Your task to perform on an android device: Clear the shopping cart on costco. Add razer nari to the cart on costco, then select checkout. Image 0: 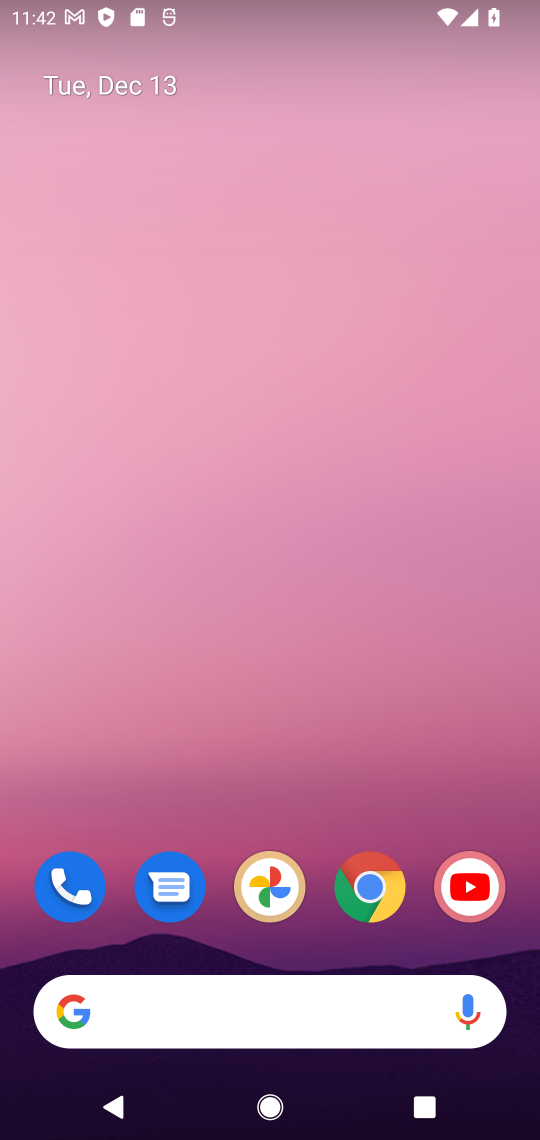
Step 0: drag from (166, 998) to (352, 217)
Your task to perform on an android device: Clear the shopping cart on costco. Add razer nari to the cart on costco, then select checkout. Image 1: 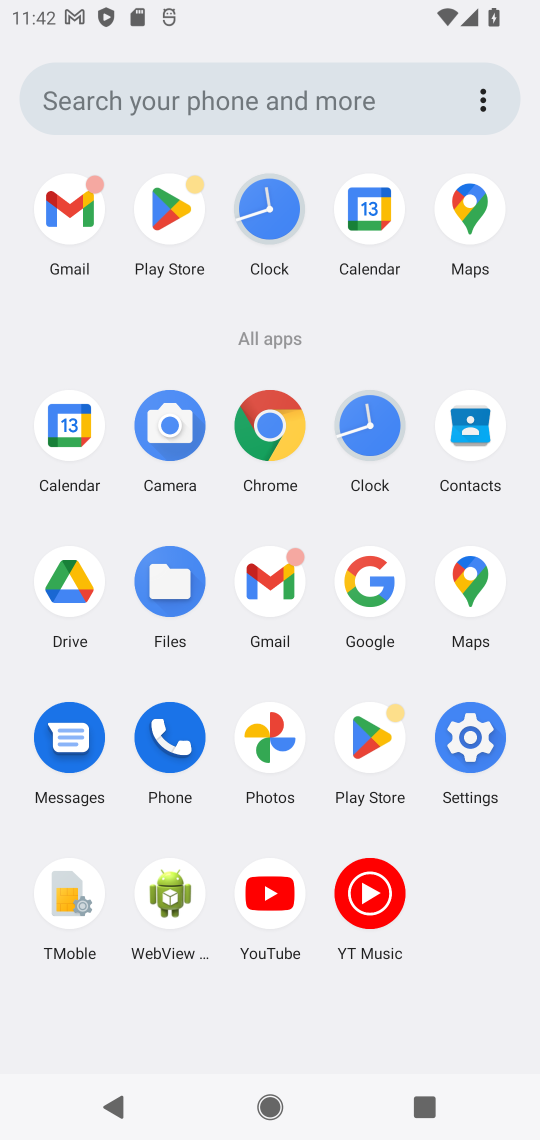
Step 1: click (370, 587)
Your task to perform on an android device: Clear the shopping cart on costco. Add razer nari to the cart on costco, then select checkout. Image 2: 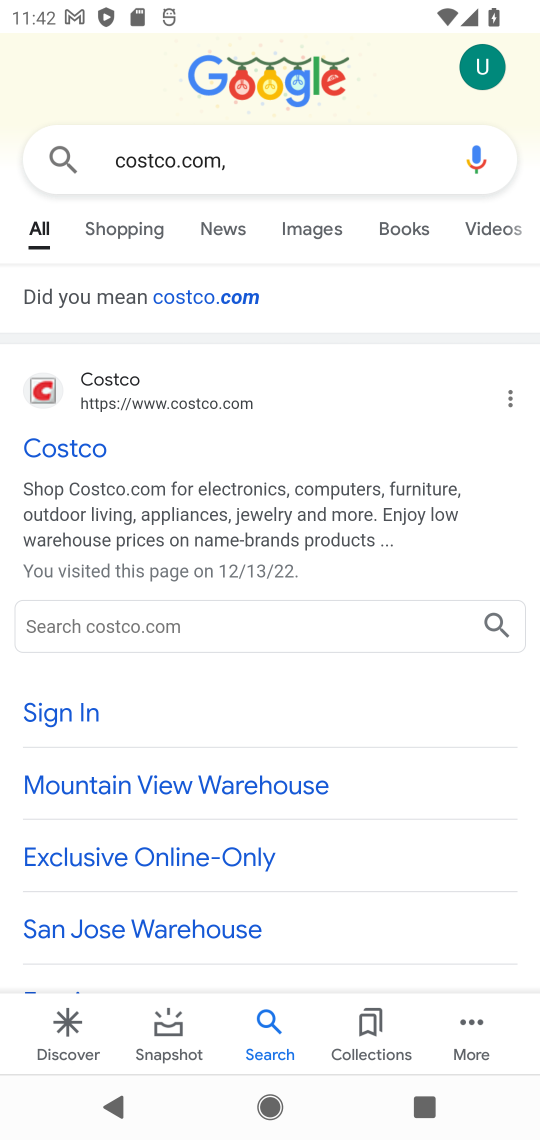
Step 2: click (68, 447)
Your task to perform on an android device: Clear the shopping cart on costco. Add razer nari to the cart on costco, then select checkout. Image 3: 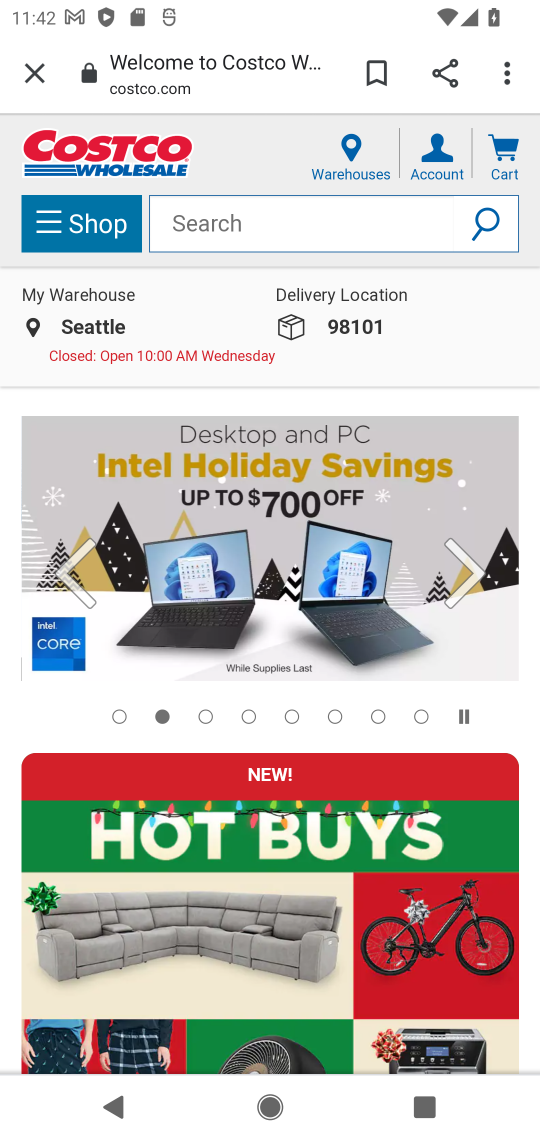
Step 3: click (241, 226)
Your task to perform on an android device: Clear the shopping cart on costco. Add razer nari to the cart on costco, then select checkout. Image 4: 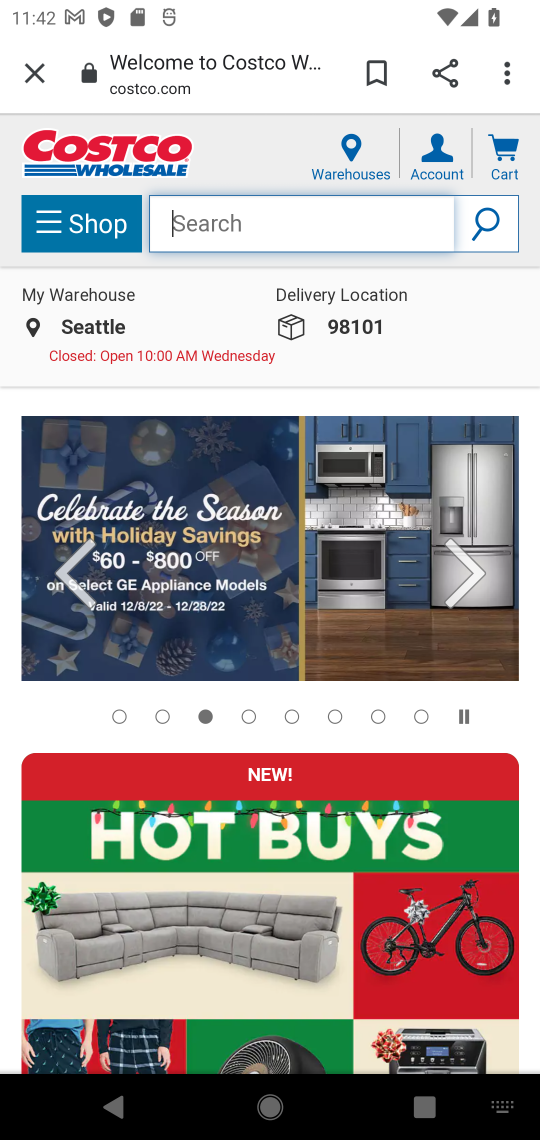
Step 4: type "razer nar"
Your task to perform on an android device: Clear the shopping cart on costco. Add razer nari to the cart on costco, then select checkout. Image 5: 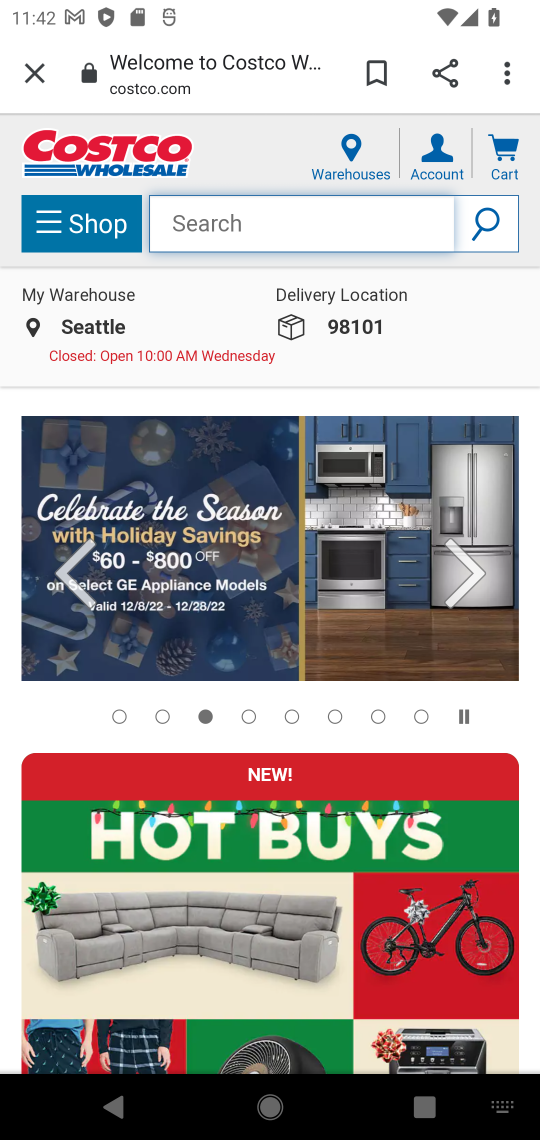
Step 5: click (479, 219)
Your task to perform on an android device: Clear the shopping cart on costco. Add razer nari to the cart on costco, then select checkout. Image 6: 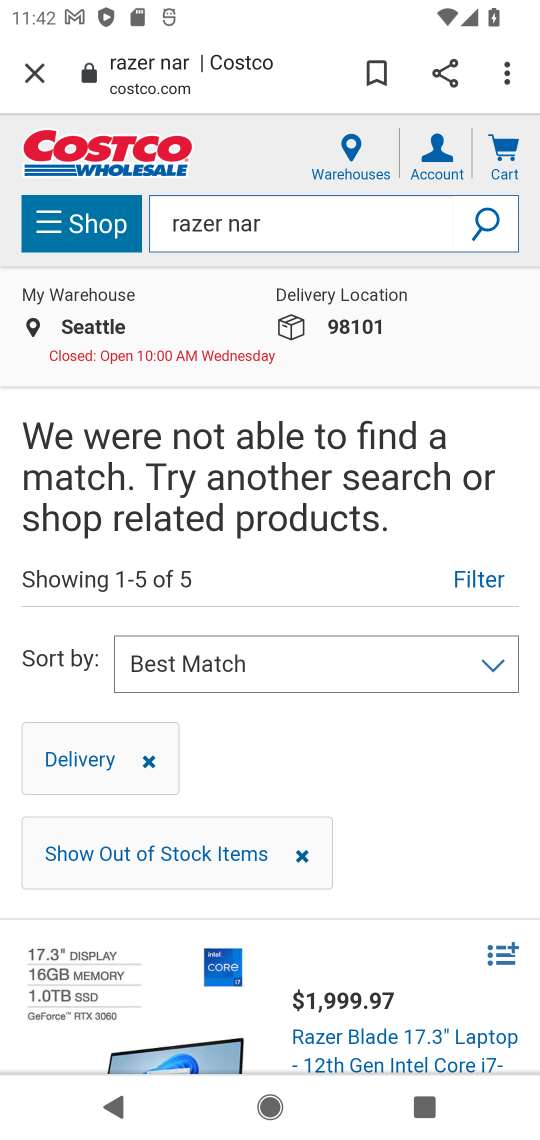
Step 6: drag from (265, 957) to (354, 409)
Your task to perform on an android device: Clear the shopping cart on costco. Add razer nari to the cart on costco, then select checkout. Image 7: 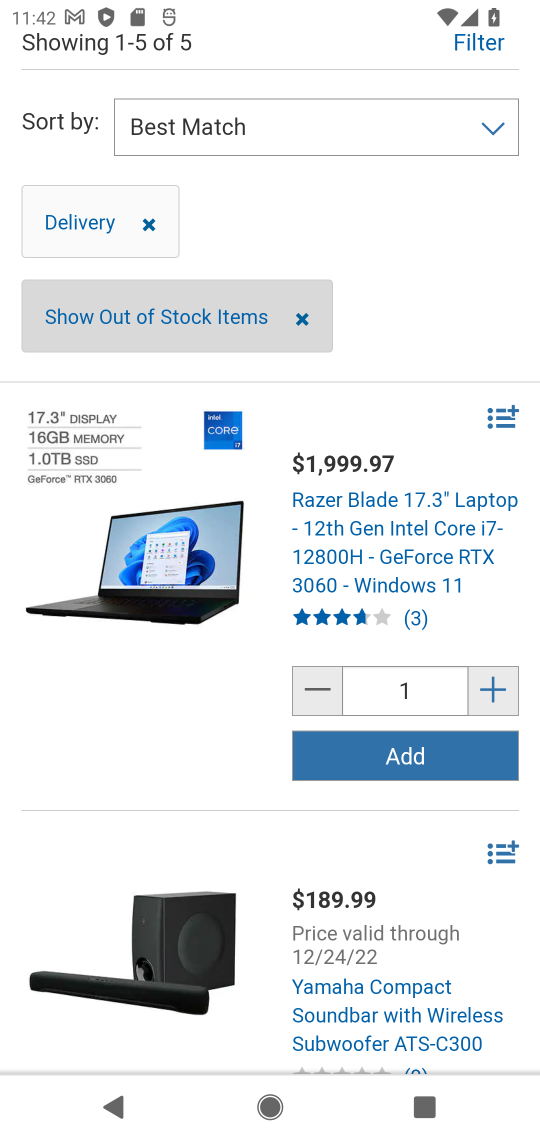
Step 7: click (388, 767)
Your task to perform on an android device: Clear the shopping cart on costco. Add razer nari to the cart on costco, then select checkout. Image 8: 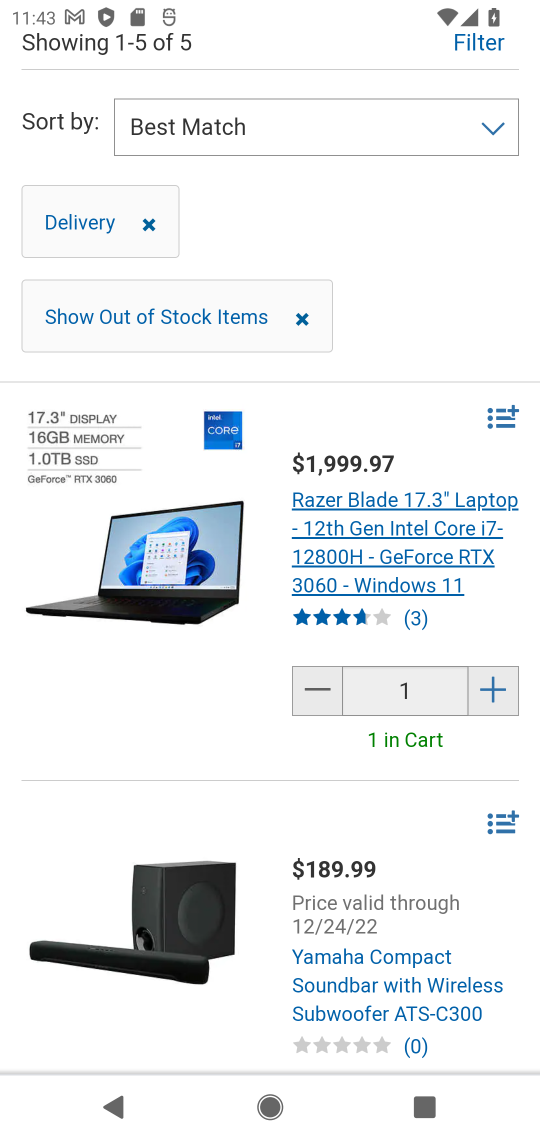
Step 8: drag from (405, 278) to (420, 635)
Your task to perform on an android device: Clear the shopping cart on costco. Add razer nari to the cart on costco, then select checkout. Image 9: 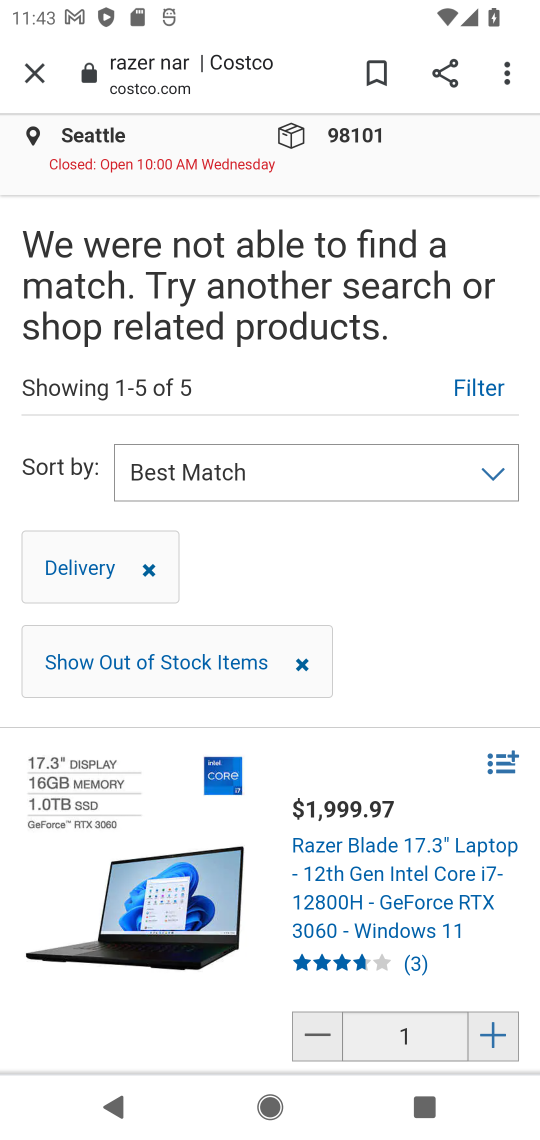
Step 9: drag from (456, 212) to (459, 568)
Your task to perform on an android device: Clear the shopping cart on costco. Add razer nari to the cart on costco, then select checkout. Image 10: 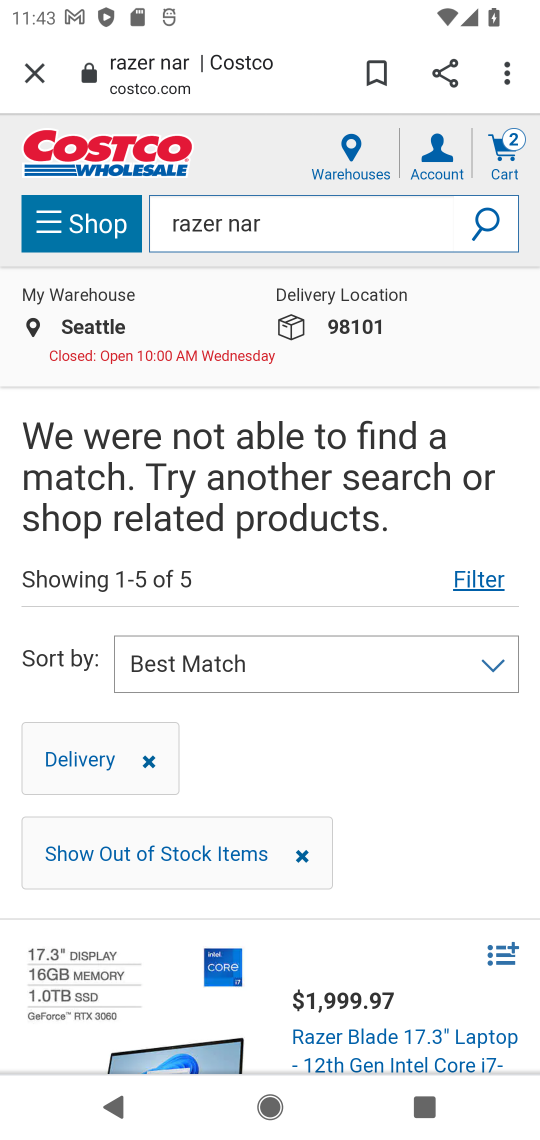
Step 10: click (488, 142)
Your task to perform on an android device: Clear the shopping cart on costco. Add razer nari to the cart on costco, then select checkout. Image 11: 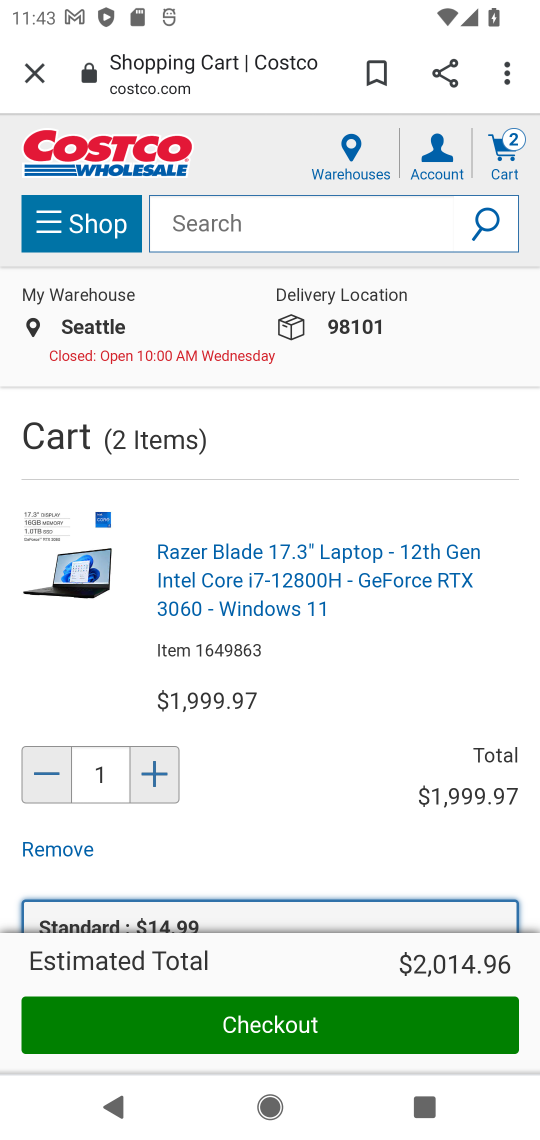
Step 11: click (269, 1020)
Your task to perform on an android device: Clear the shopping cart on costco. Add razer nari to the cart on costco, then select checkout. Image 12: 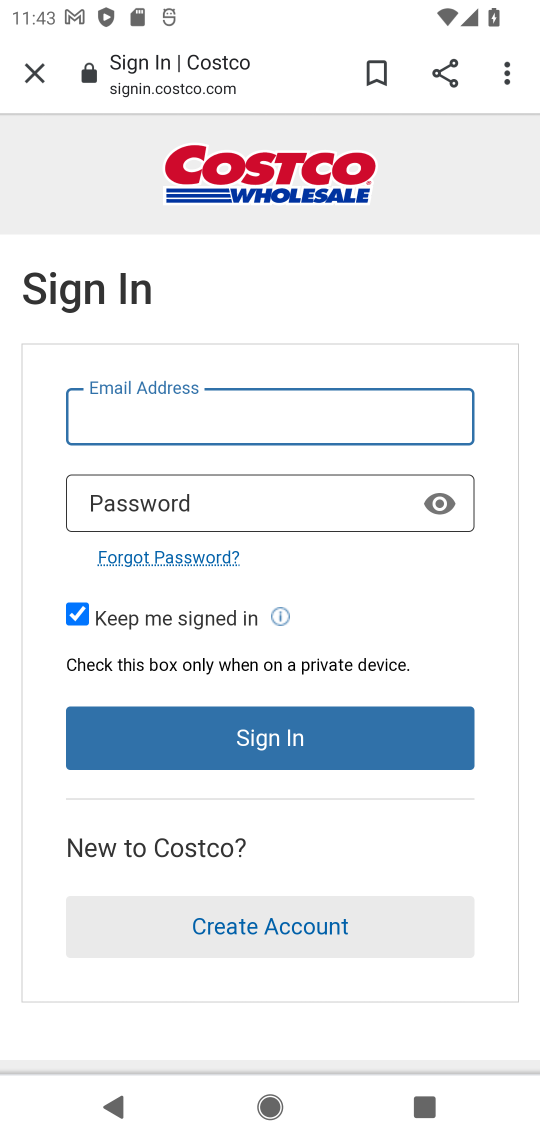
Step 12: task complete